Your task to perform on an android device: open app "Walmart Shopping & Grocery" Image 0: 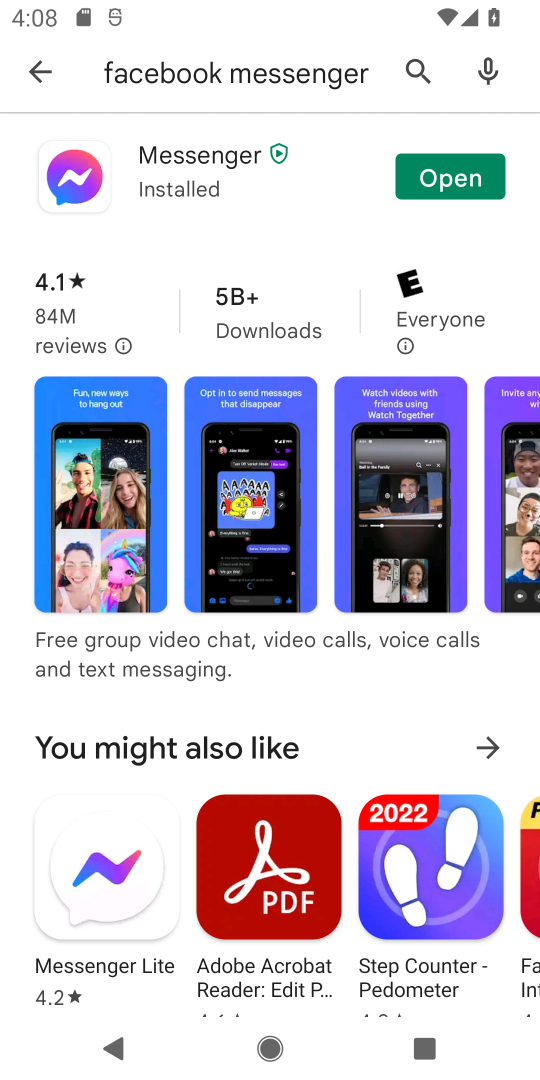
Step 0: click (404, 67)
Your task to perform on an android device: open app "Walmart Shopping & Grocery" Image 1: 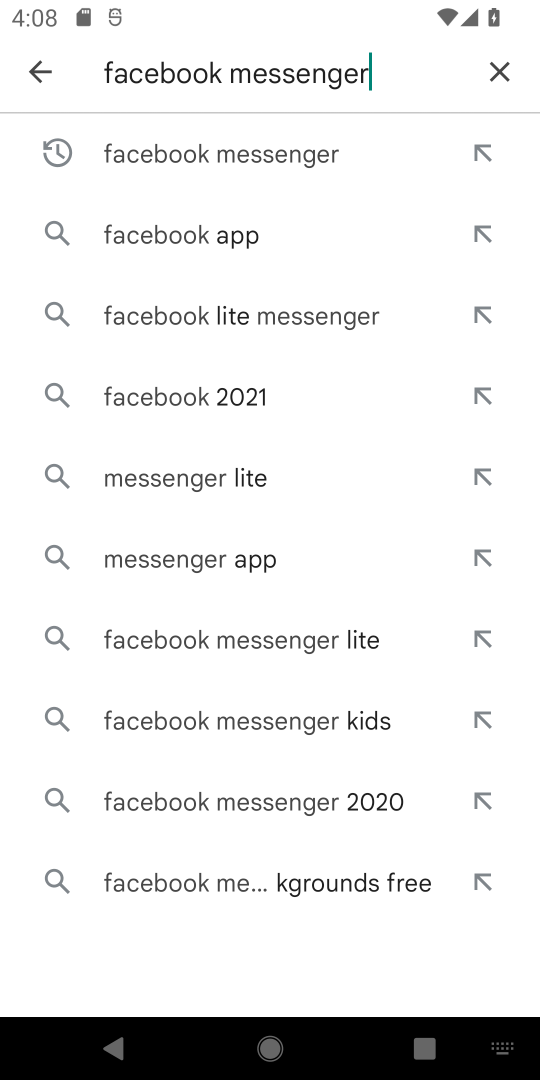
Step 1: click (511, 51)
Your task to perform on an android device: open app "Walmart Shopping & Grocery" Image 2: 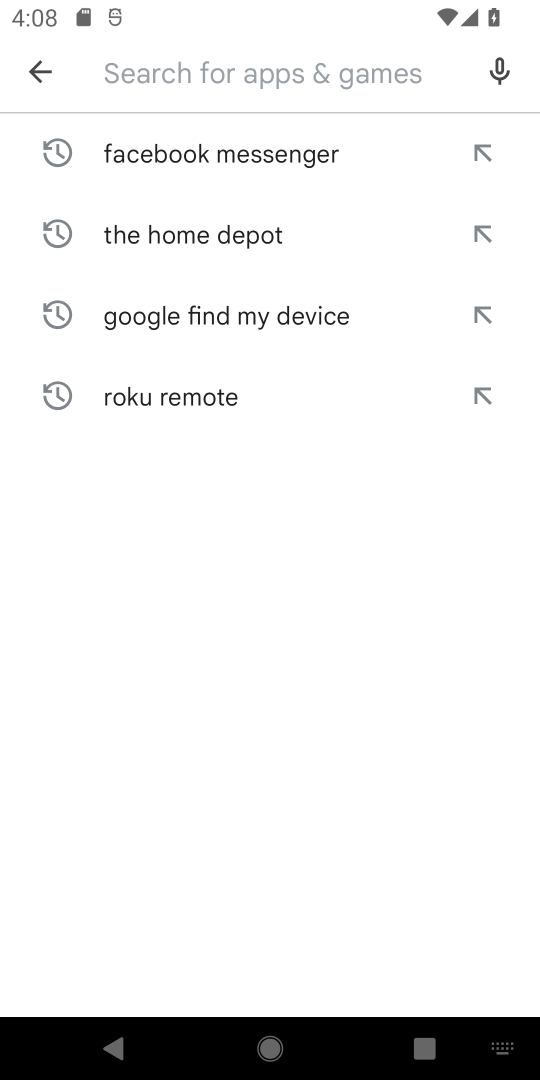
Step 2: click (237, 72)
Your task to perform on an android device: open app "Walmart Shopping & Grocery" Image 3: 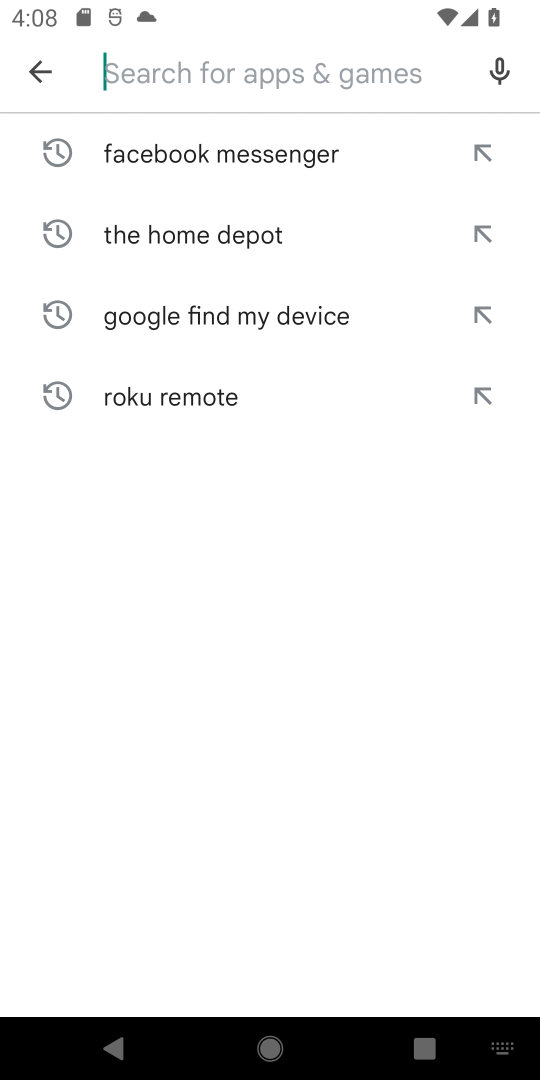
Step 3: type "walmart"
Your task to perform on an android device: open app "Walmart Shopping & Grocery" Image 4: 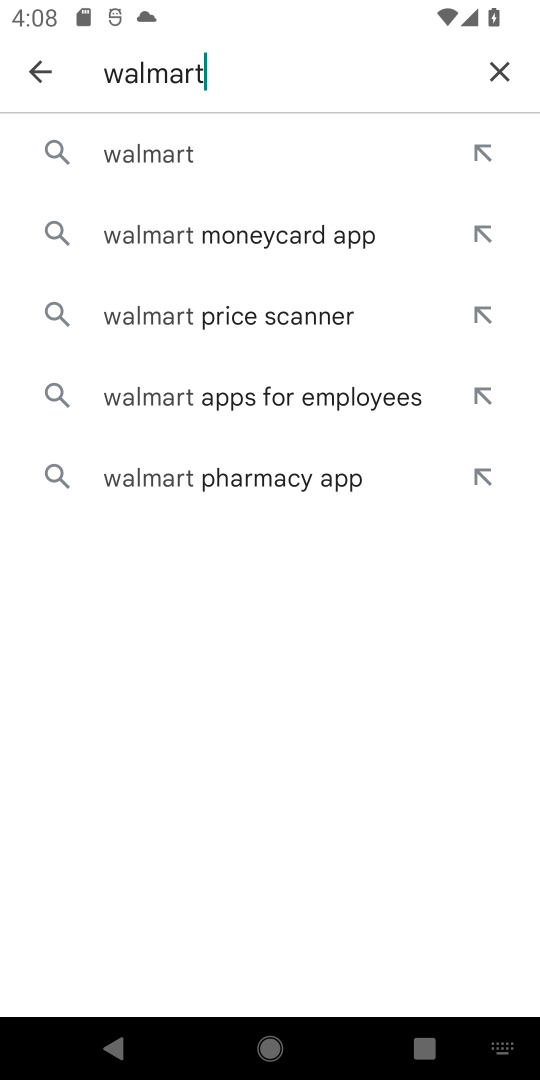
Step 4: click (292, 164)
Your task to perform on an android device: open app "Walmart Shopping & Grocery" Image 5: 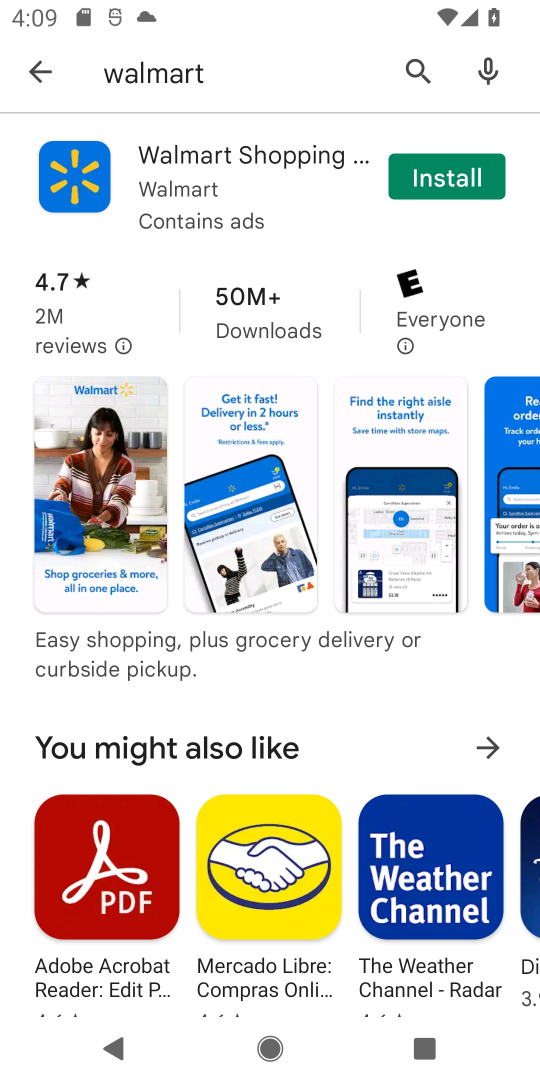
Step 5: click (402, 182)
Your task to perform on an android device: open app "Walmart Shopping & Grocery" Image 6: 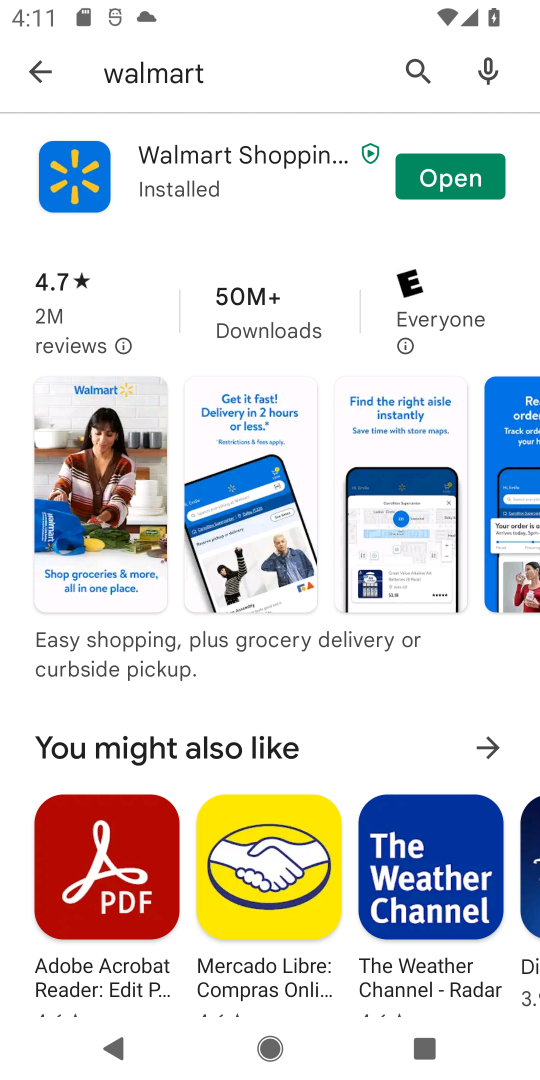
Step 6: click (441, 167)
Your task to perform on an android device: open app "Walmart Shopping & Grocery" Image 7: 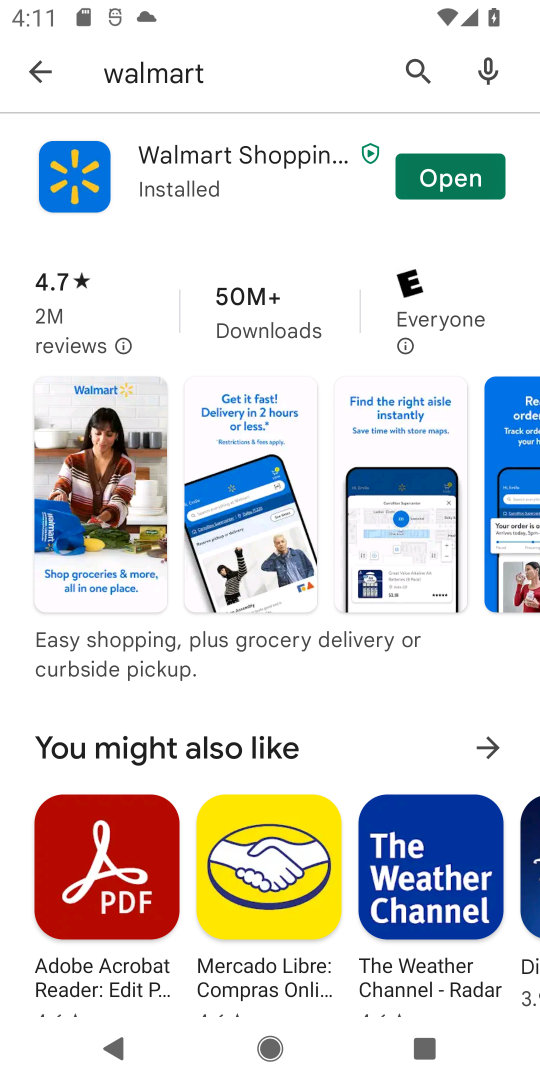
Step 7: task complete